Your task to perform on an android device: uninstall "Facebook Messenger" Image 0: 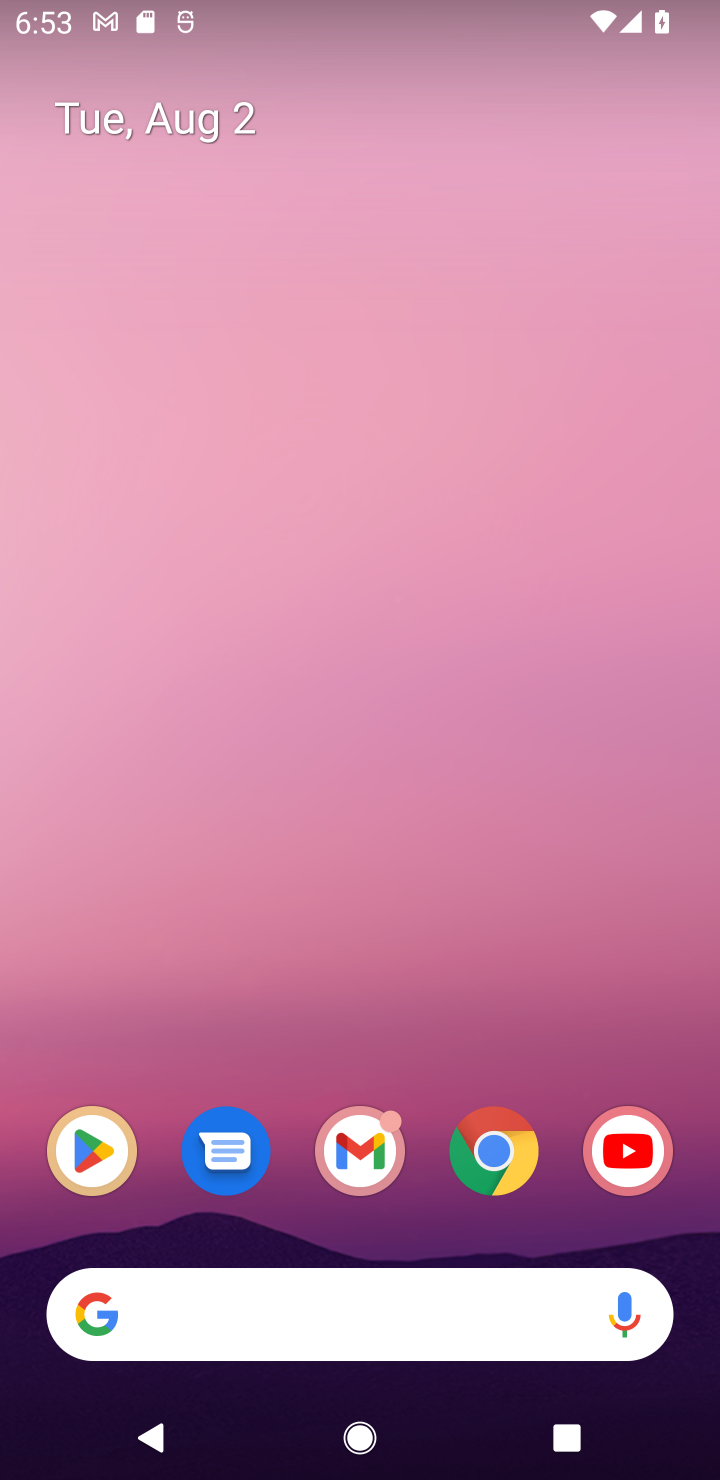
Step 0: click (109, 1143)
Your task to perform on an android device: uninstall "Facebook Messenger" Image 1: 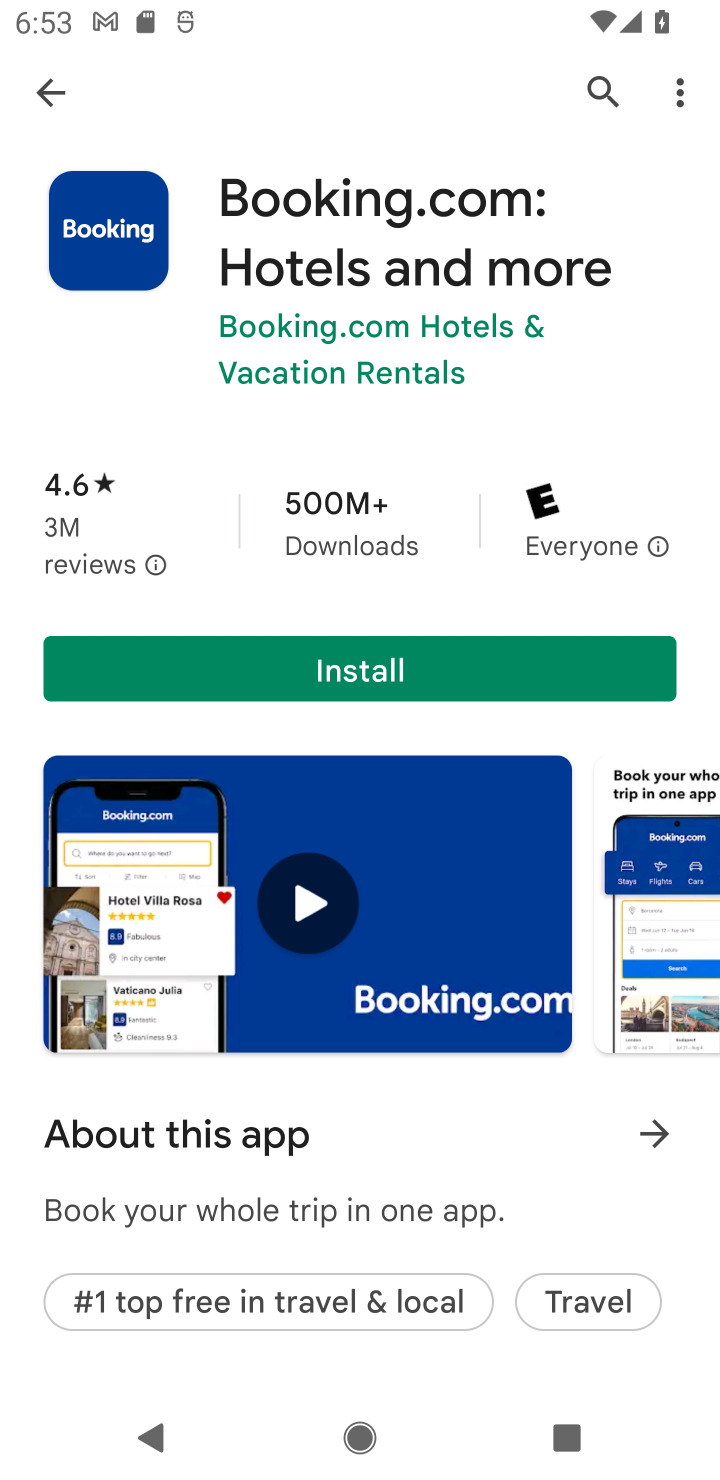
Step 1: click (656, 95)
Your task to perform on an android device: uninstall "Facebook Messenger" Image 2: 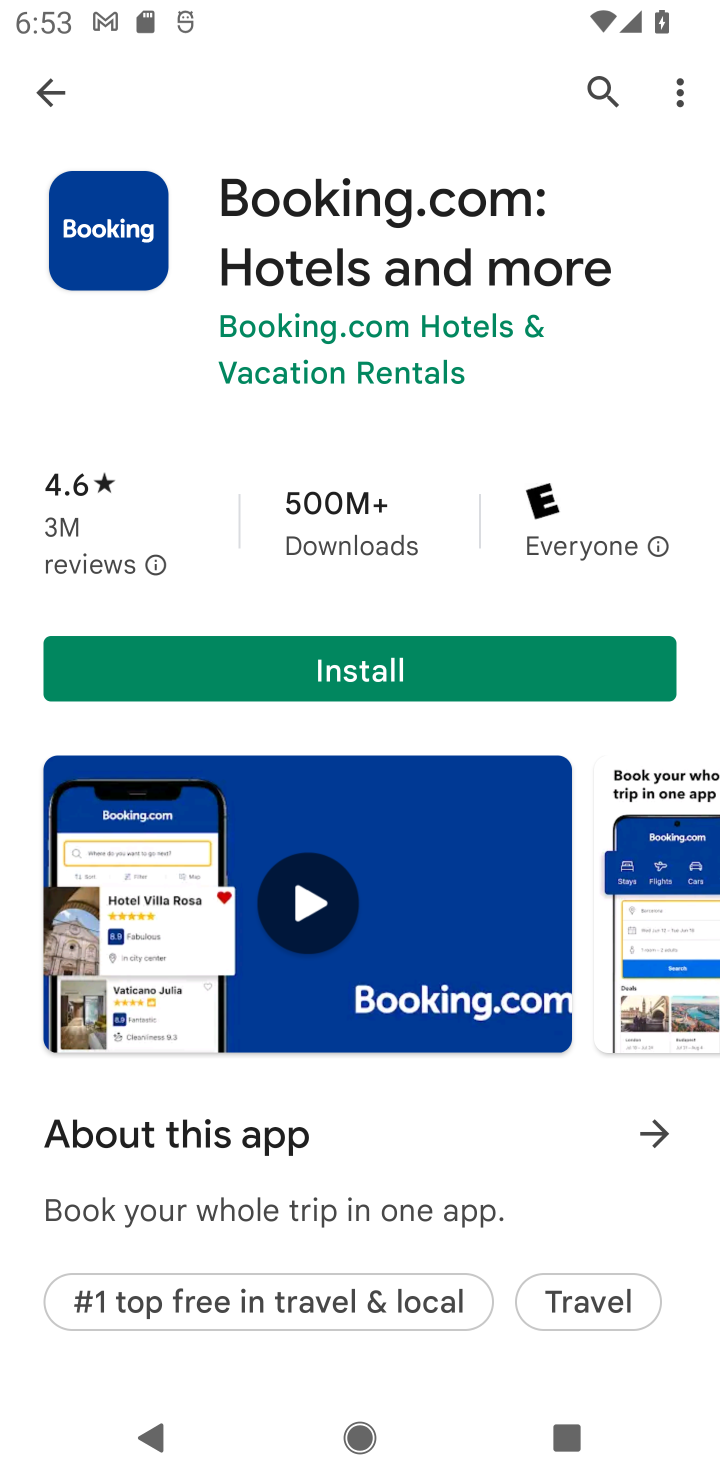
Step 2: click (602, 93)
Your task to perform on an android device: uninstall "Facebook Messenger" Image 3: 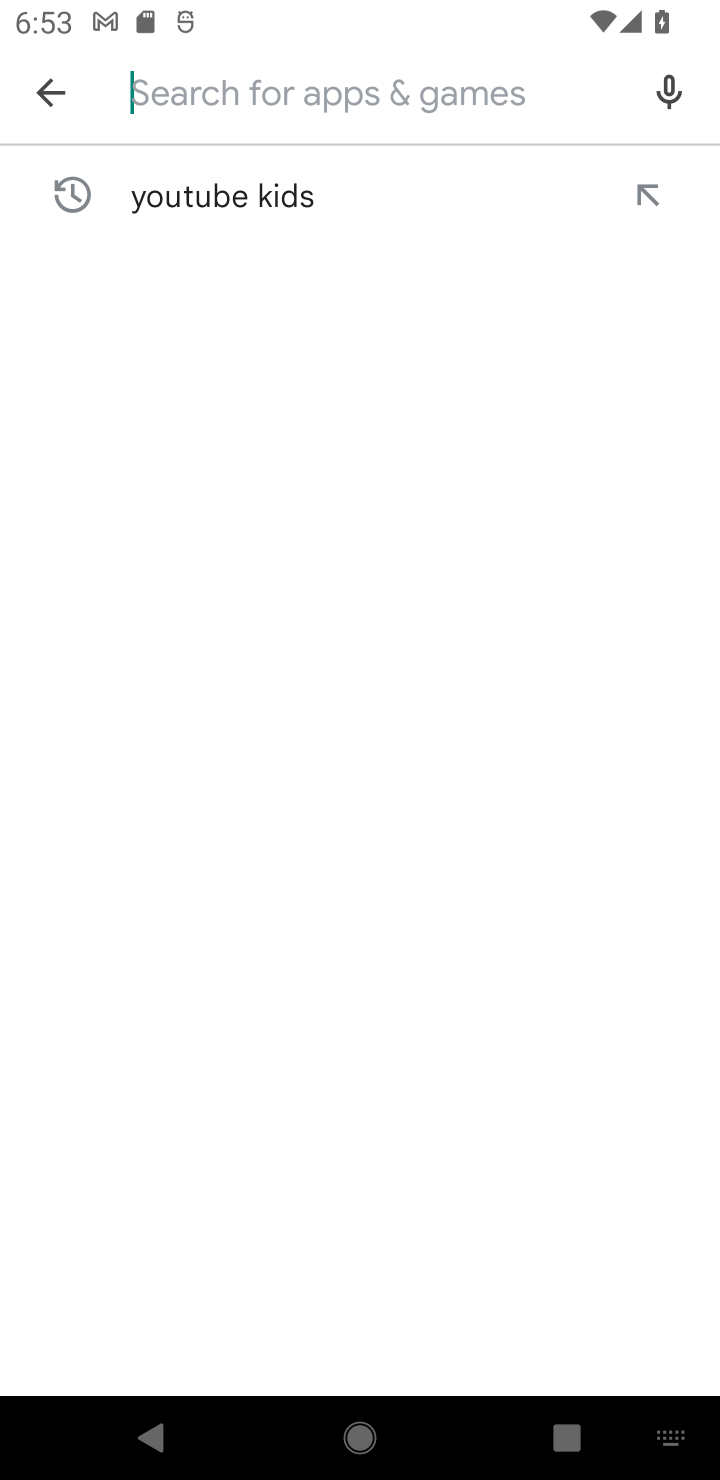
Step 3: type "Facebook Messenger"
Your task to perform on an android device: uninstall "Facebook Messenger" Image 4: 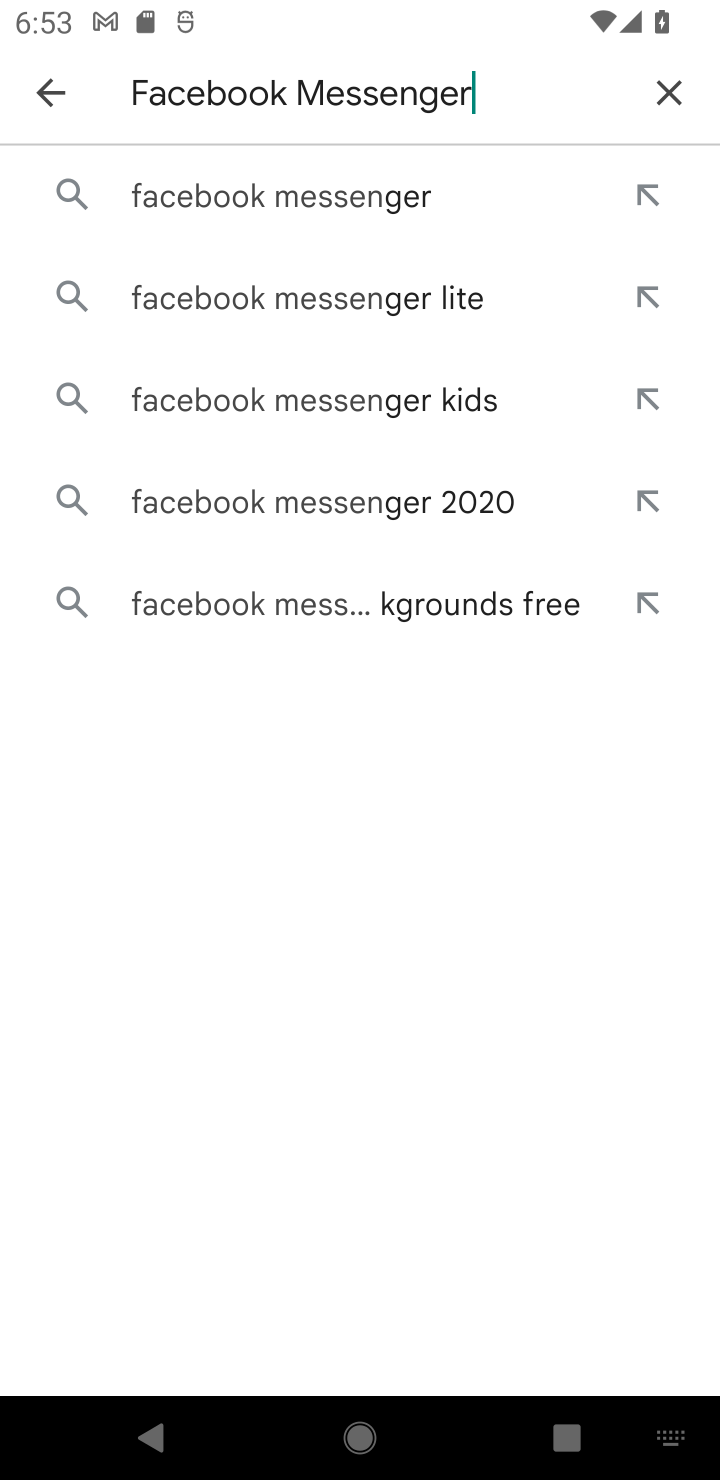
Step 4: type ""
Your task to perform on an android device: uninstall "Facebook Messenger" Image 5: 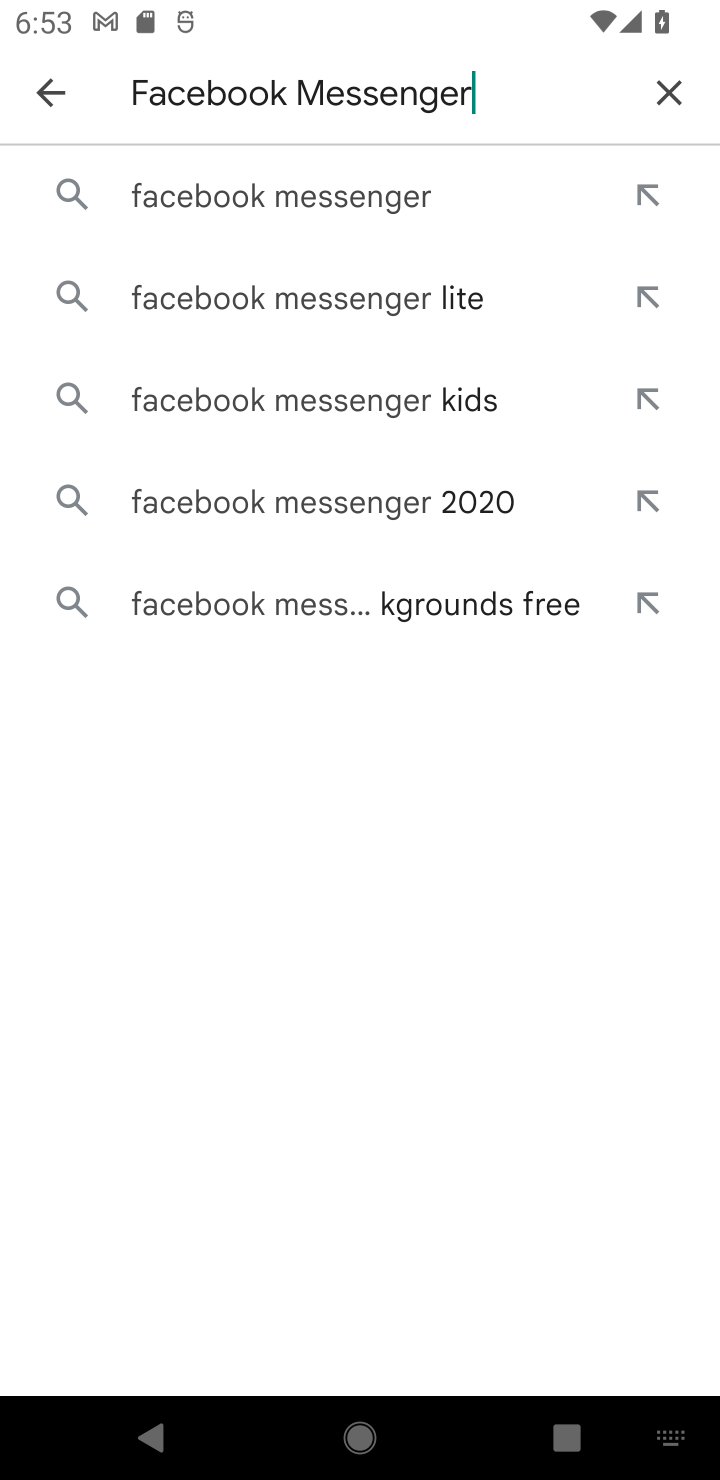
Step 5: click (228, 204)
Your task to perform on an android device: uninstall "Facebook Messenger" Image 6: 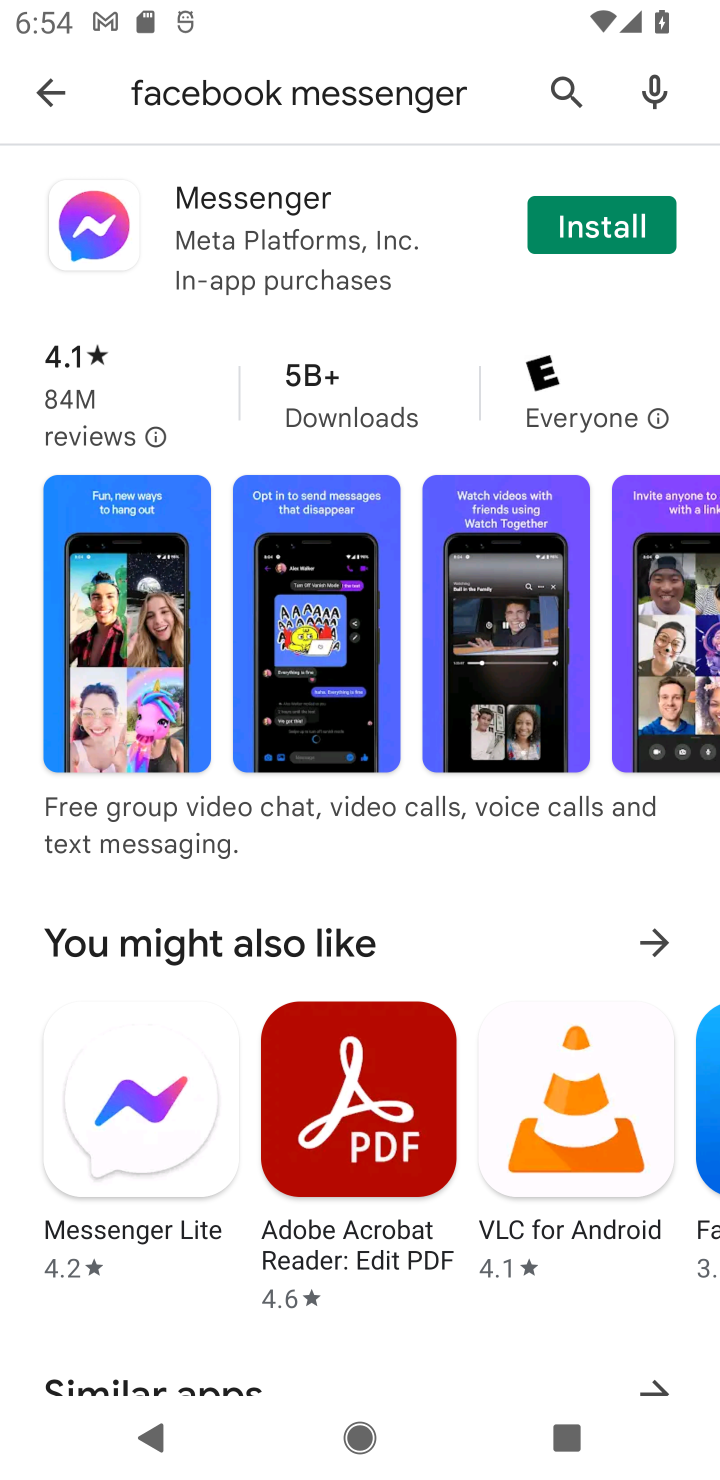
Step 6: task complete